Your task to perform on an android device: Go to ESPN.com Image 0: 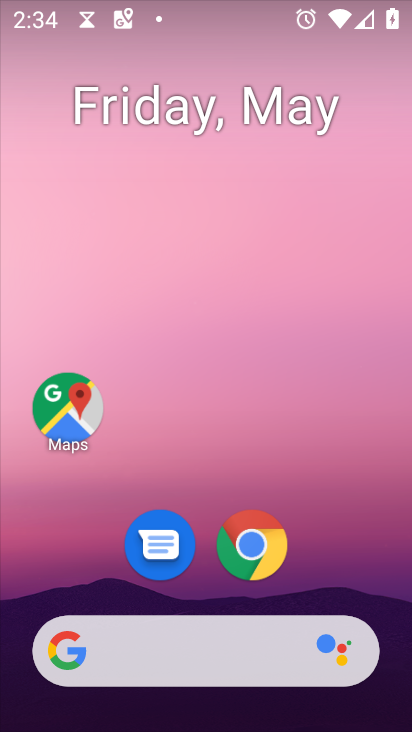
Step 0: click (256, 567)
Your task to perform on an android device: Go to ESPN.com Image 1: 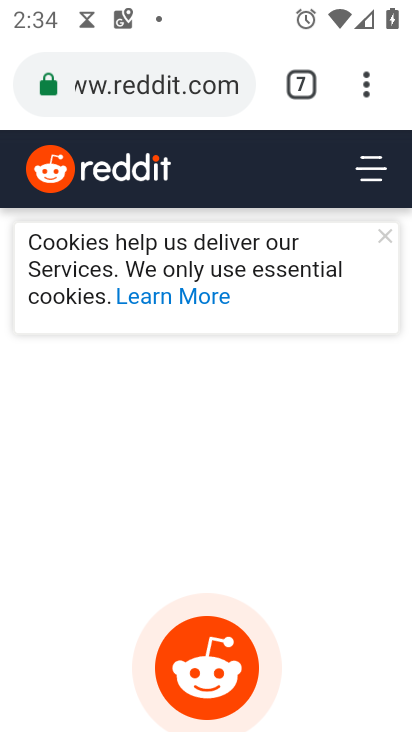
Step 1: click (306, 78)
Your task to perform on an android device: Go to ESPN.com Image 2: 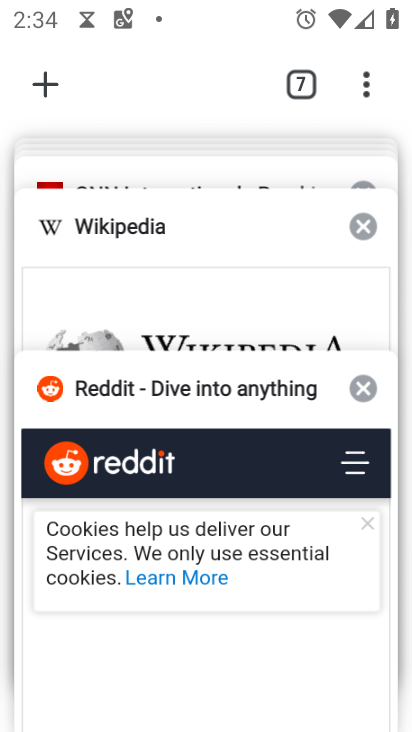
Step 2: click (56, 83)
Your task to perform on an android device: Go to ESPN.com Image 3: 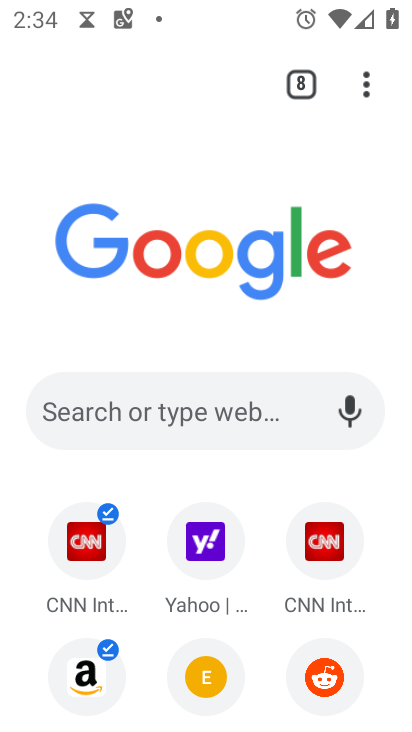
Step 3: click (224, 406)
Your task to perform on an android device: Go to ESPN.com Image 4: 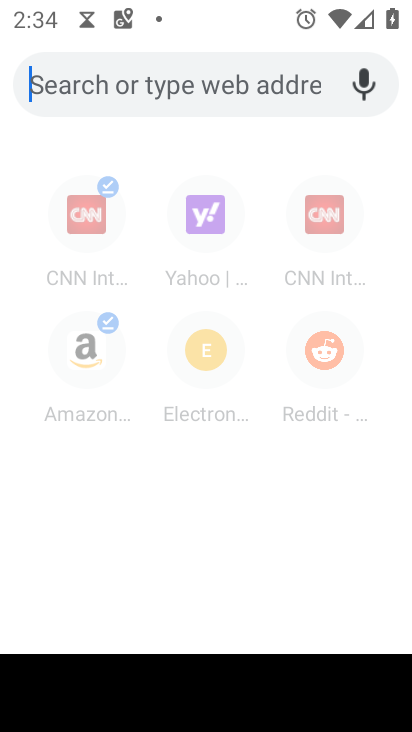
Step 4: type "ESPN.com"
Your task to perform on an android device: Go to ESPN.com Image 5: 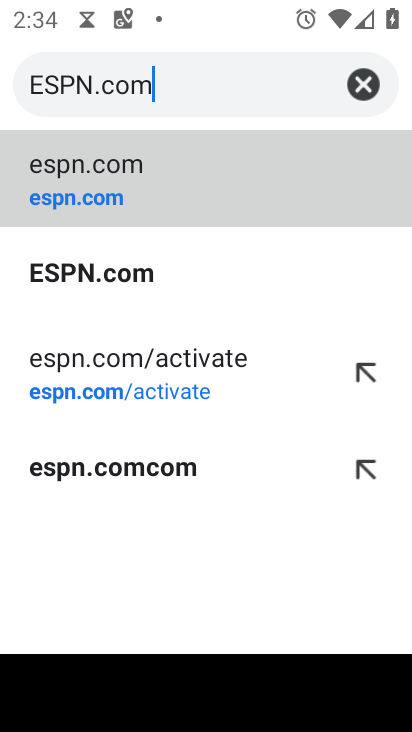
Step 5: click (154, 184)
Your task to perform on an android device: Go to ESPN.com Image 6: 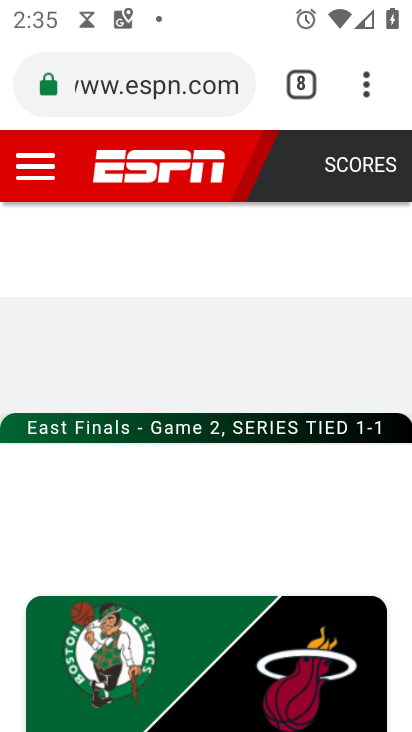
Step 6: task complete